Your task to perform on an android device: allow notifications from all sites in the chrome app Image 0: 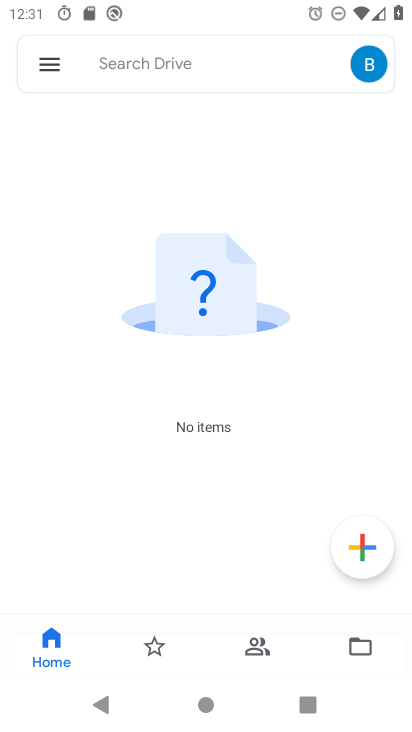
Step 0: press home button
Your task to perform on an android device: allow notifications from all sites in the chrome app Image 1: 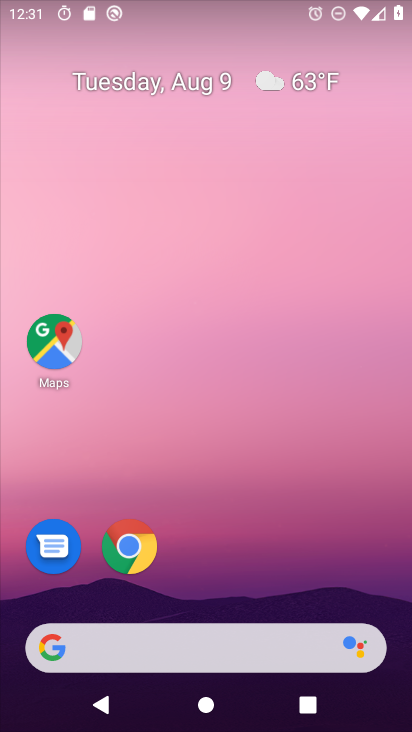
Step 1: drag from (225, 599) to (276, 8)
Your task to perform on an android device: allow notifications from all sites in the chrome app Image 2: 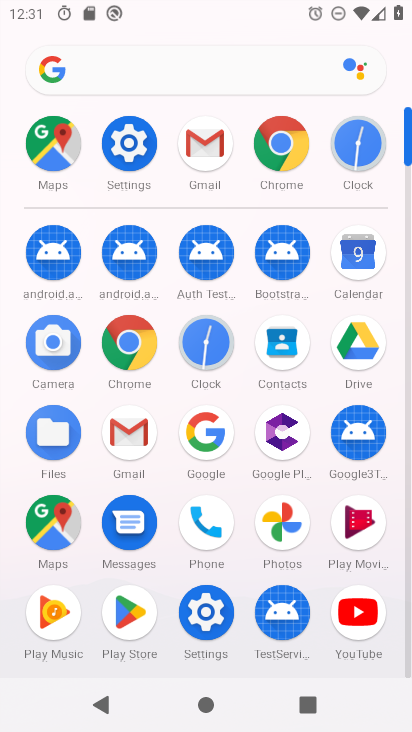
Step 2: click (278, 138)
Your task to perform on an android device: allow notifications from all sites in the chrome app Image 3: 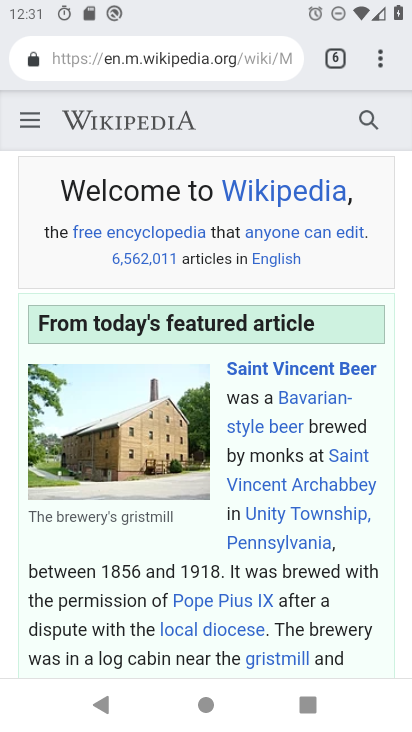
Step 3: click (373, 58)
Your task to perform on an android device: allow notifications from all sites in the chrome app Image 4: 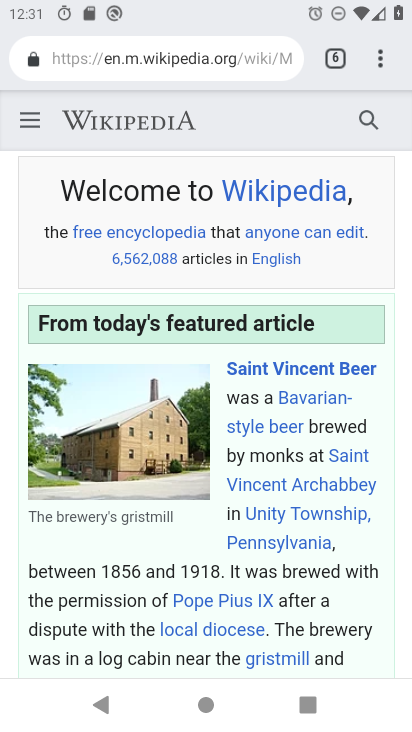
Step 4: click (381, 60)
Your task to perform on an android device: allow notifications from all sites in the chrome app Image 5: 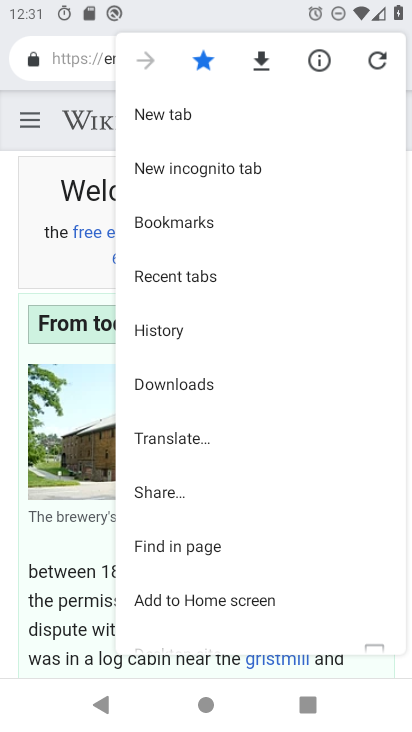
Step 5: drag from (253, 615) to (303, 82)
Your task to perform on an android device: allow notifications from all sites in the chrome app Image 6: 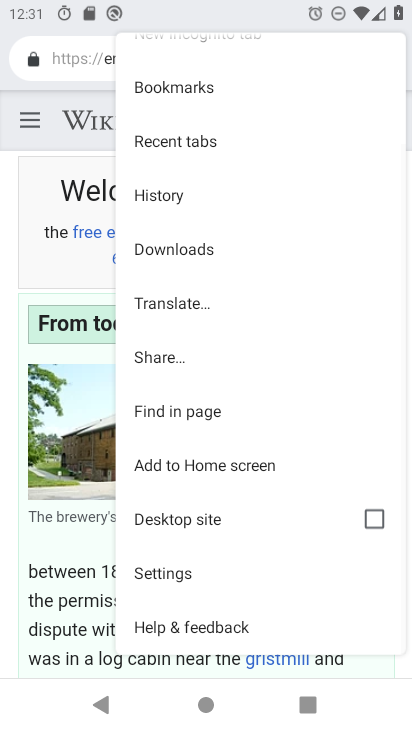
Step 6: click (196, 573)
Your task to perform on an android device: allow notifications from all sites in the chrome app Image 7: 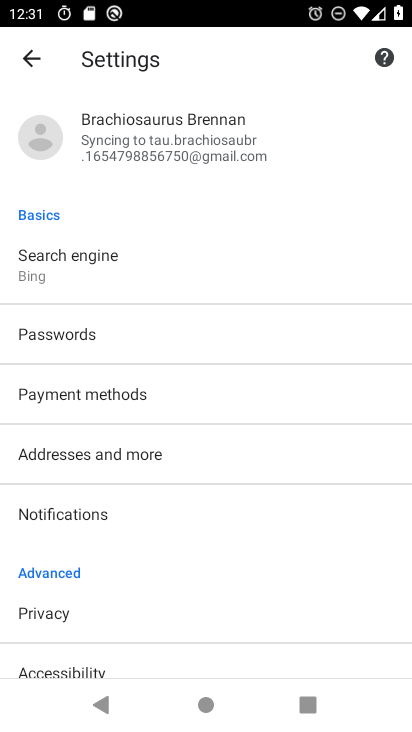
Step 7: drag from (127, 638) to (153, 207)
Your task to perform on an android device: allow notifications from all sites in the chrome app Image 8: 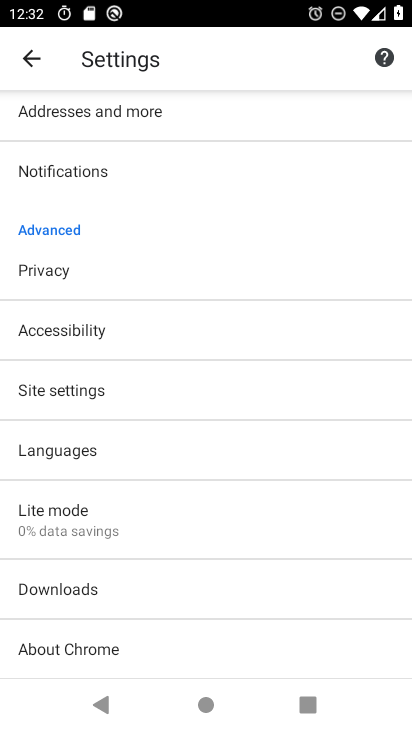
Step 8: click (123, 382)
Your task to perform on an android device: allow notifications from all sites in the chrome app Image 9: 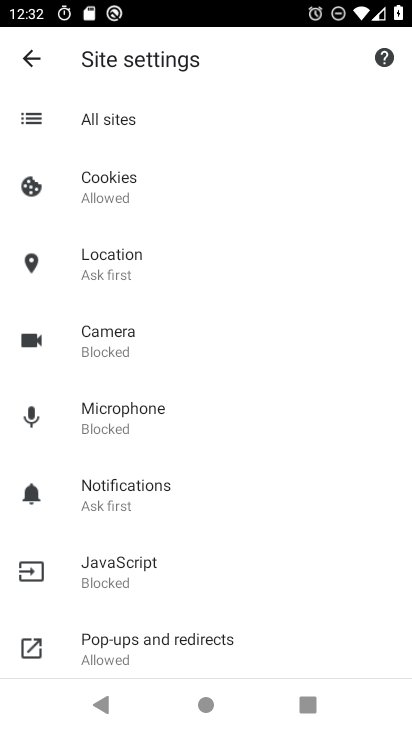
Step 9: click (75, 111)
Your task to perform on an android device: allow notifications from all sites in the chrome app Image 10: 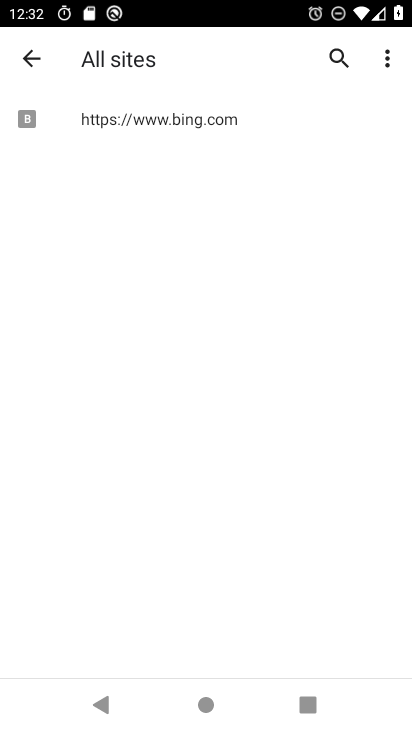
Step 10: click (108, 117)
Your task to perform on an android device: allow notifications from all sites in the chrome app Image 11: 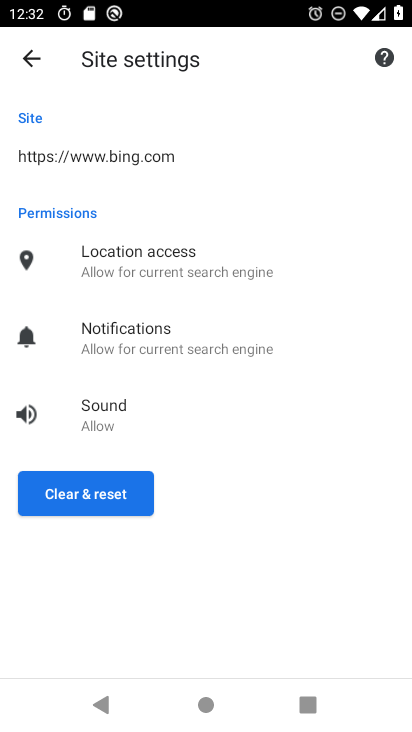
Step 11: task complete